Your task to perform on an android device: turn off location history Image 0: 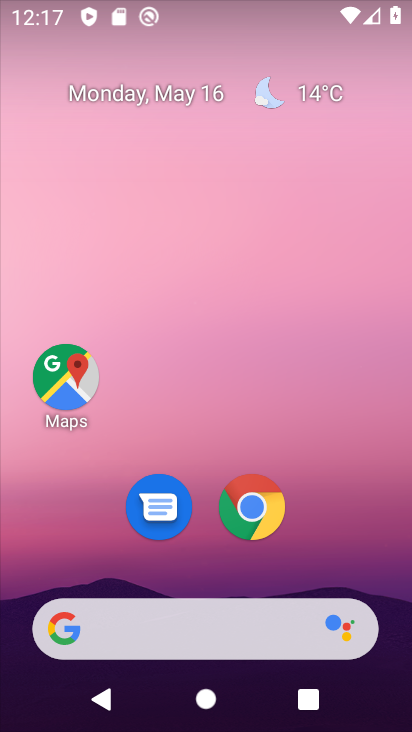
Step 0: drag from (307, 499) to (290, 162)
Your task to perform on an android device: turn off location history Image 1: 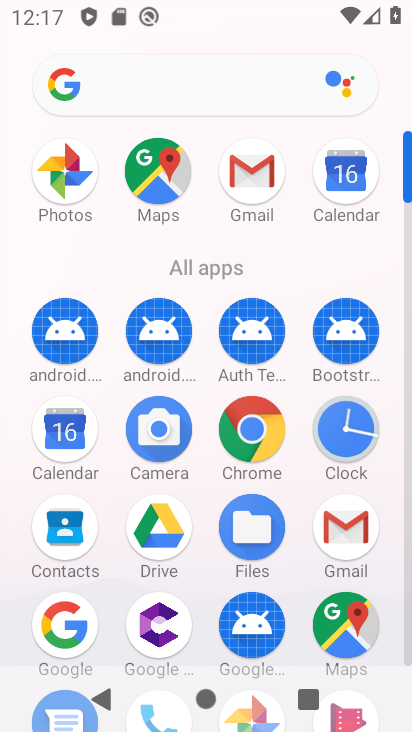
Step 1: drag from (87, 261) to (139, 24)
Your task to perform on an android device: turn off location history Image 2: 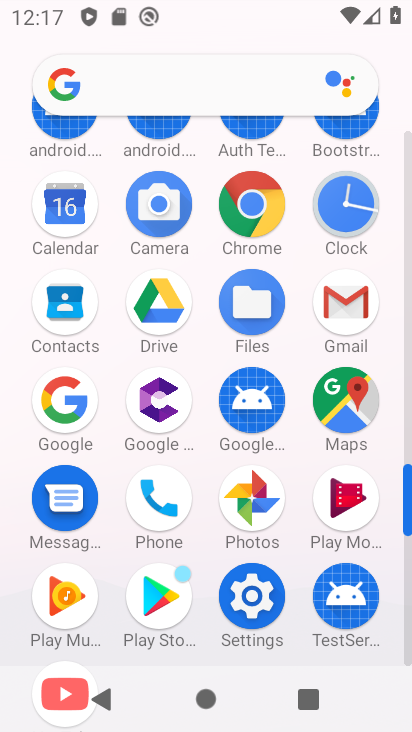
Step 2: click (272, 616)
Your task to perform on an android device: turn off location history Image 3: 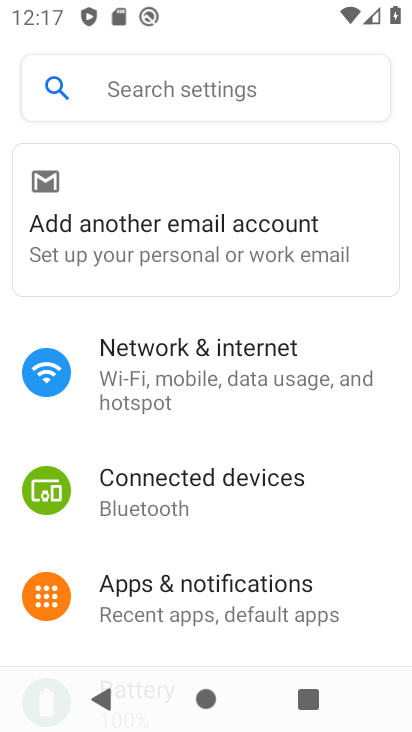
Step 3: drag from (166, 567) to (244, 158)
Your task to perform on an android device: turn off location history Image 4: 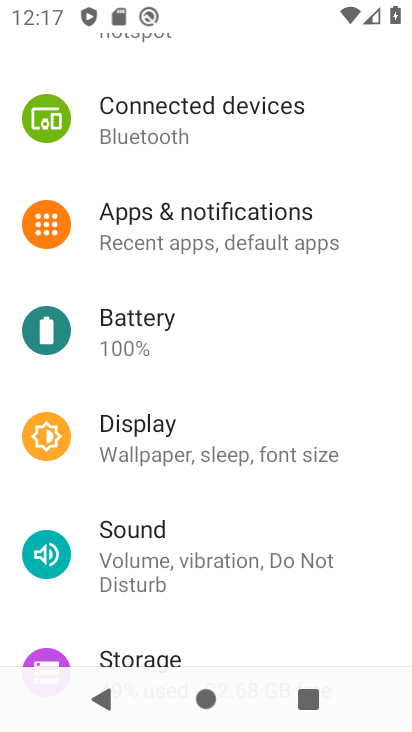
Step 4: drag from (179, 469) to (197, 250)
Your task to perform on an android device: turn off location history Image 5: 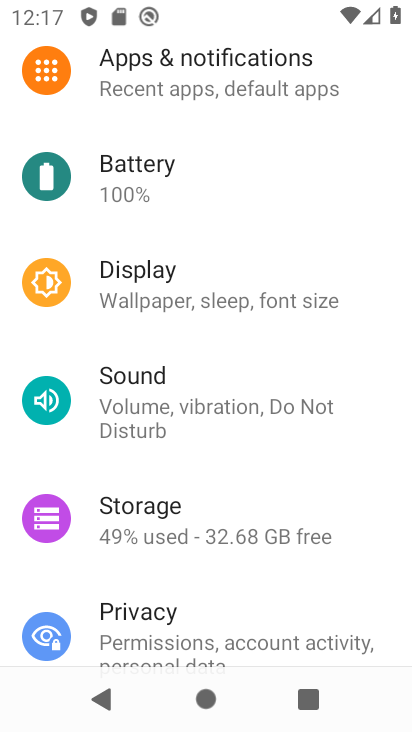
Step 5: drag from (164, 532) to (200, 203)
Your task to perform on an android device: turn off location history Image 6: 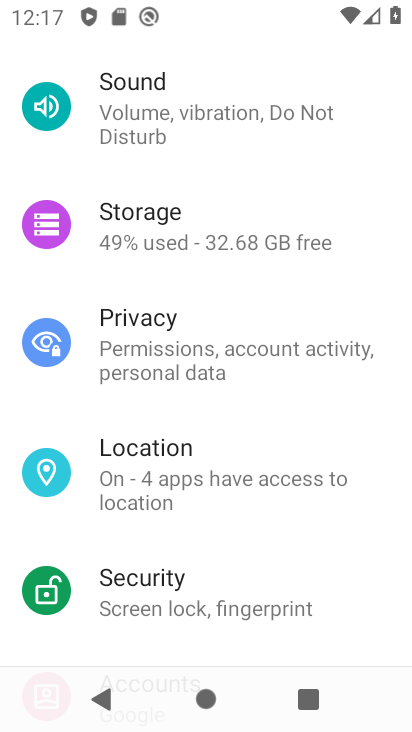
Step 6: click (194, 474)
Your task to perform on an android device: turn off location history Image 7: 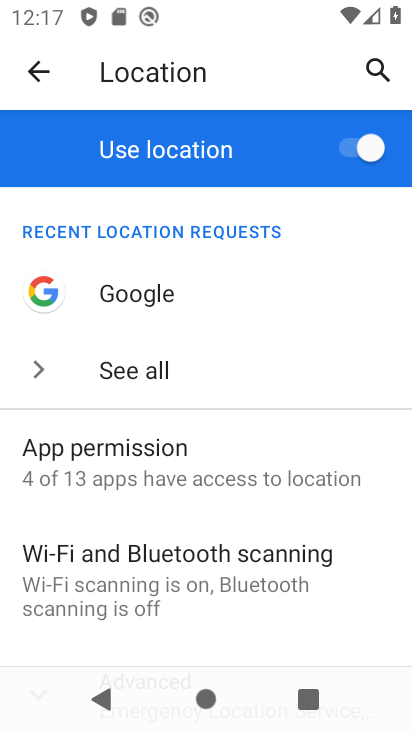
Step 7: click (371, 158)
Your task to perform on an android device: turn off location history Image 8: 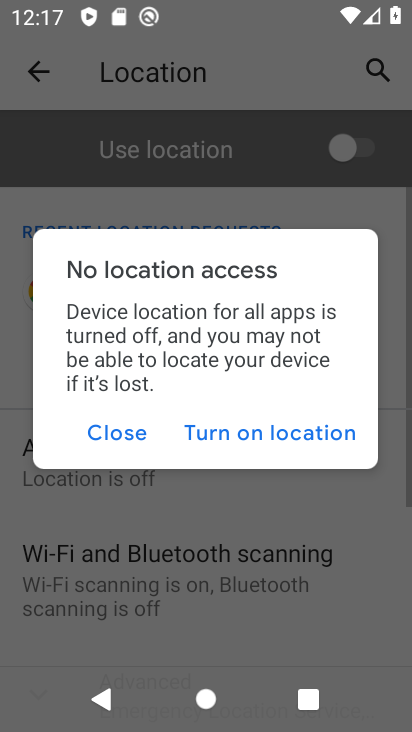
Step 8: task complete